Your task to perform on an android device: turn off smart reply in the gmail app Image 0: 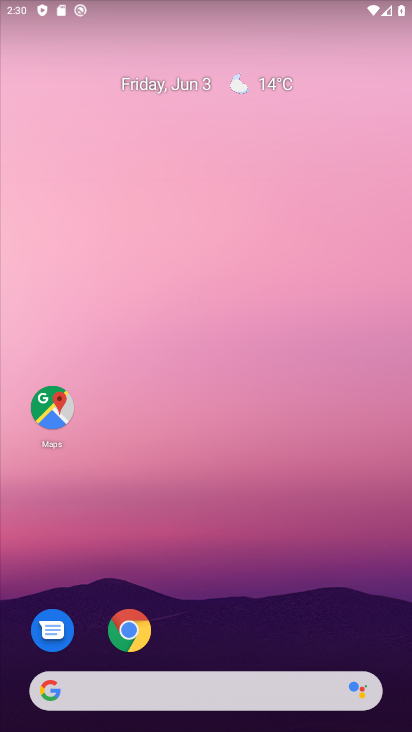
Step 0: drag from (261, 640) to (199, 117)
Your task to perform on an android device: turn off smart reply in the gmail app Image 1: 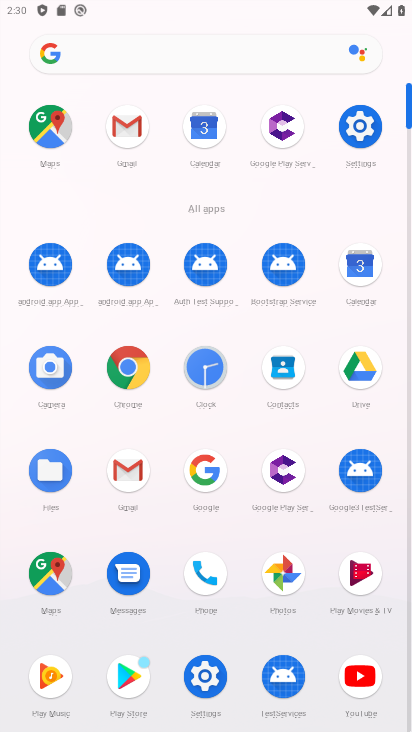
Step 1: click (129, 119)
Your task to perform on an android device: turn off smart reply in the gmail app Image 2: 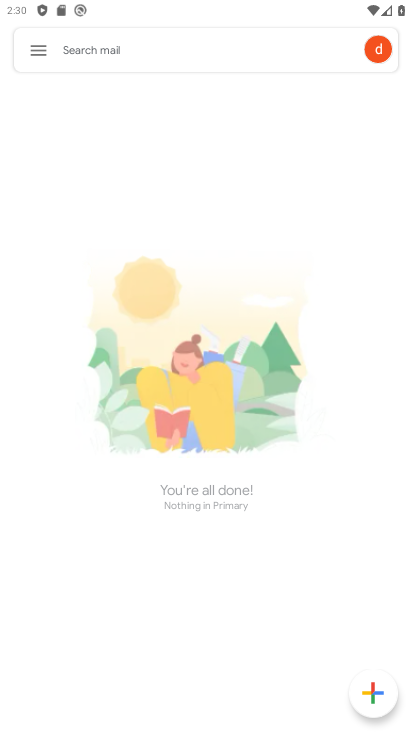
Step 2: click (46, 62)
Your task to perform on an android device: turn off smart reply in the gmail app Image 3: 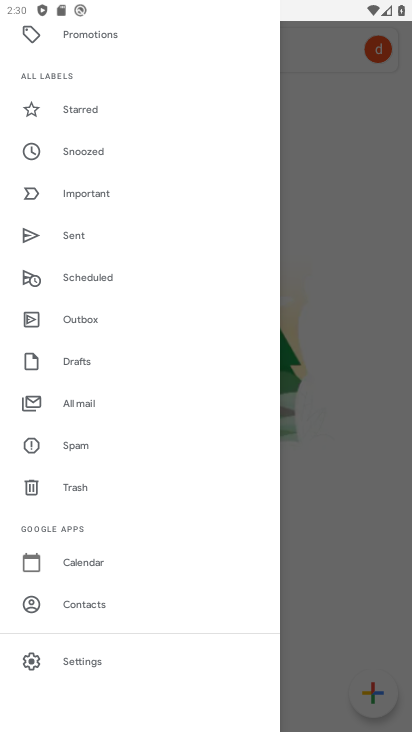
Step 3: click (101, 658)
Your task to perform on an android device: turn off smart reply in the gmail app Image 4: 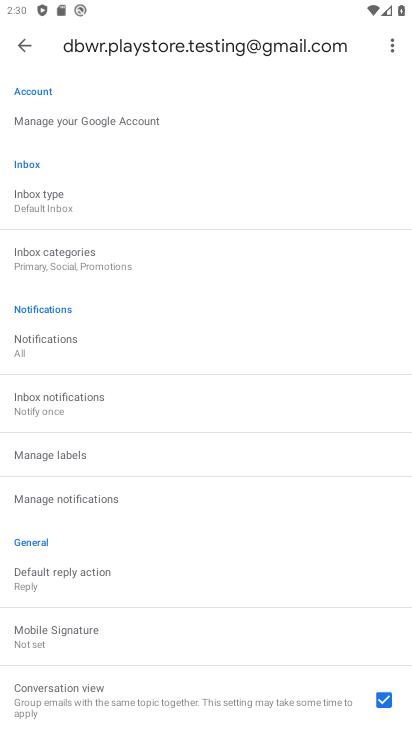
Step 4: drag from (171, 680) to (167, 377)
Your task to perform on an android device: turn off smart reply in the gmail app Image 5: 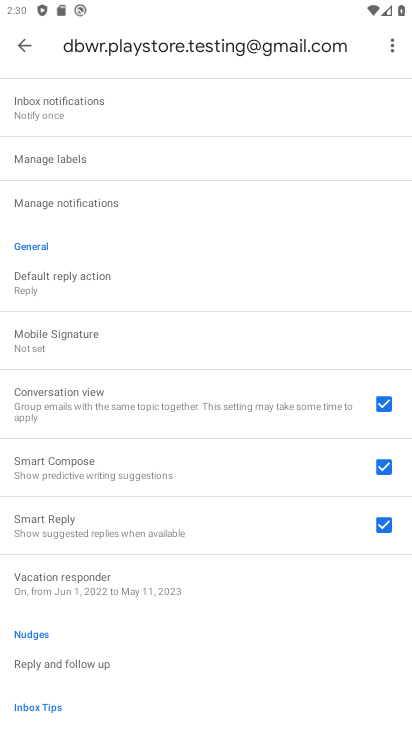
Step 5: click (386, 522)
Your task to perform on an android device: turn off smart reply in the gmail app Image 6: 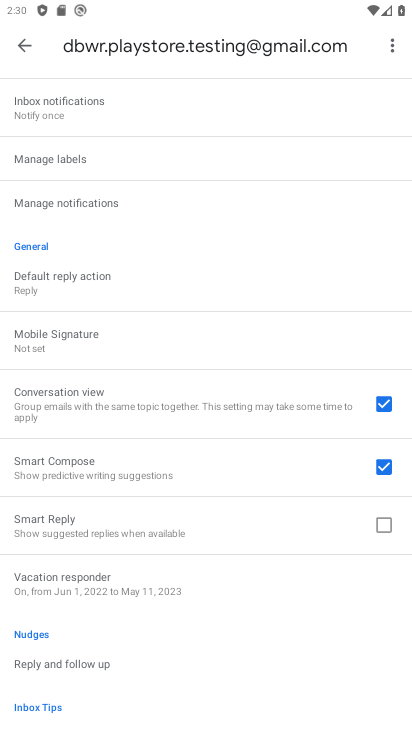
Step 6: task complete